Your task to perform on an android device: Go to location settings Image 0: 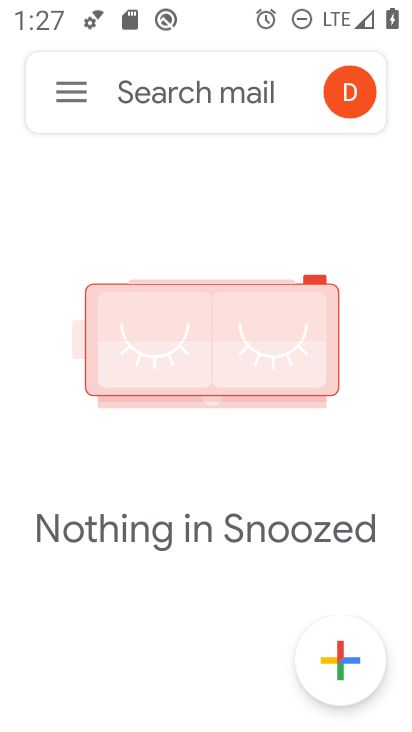
Step 0: press home button
Your task to perform on an android device: Go to location settings Image 1: 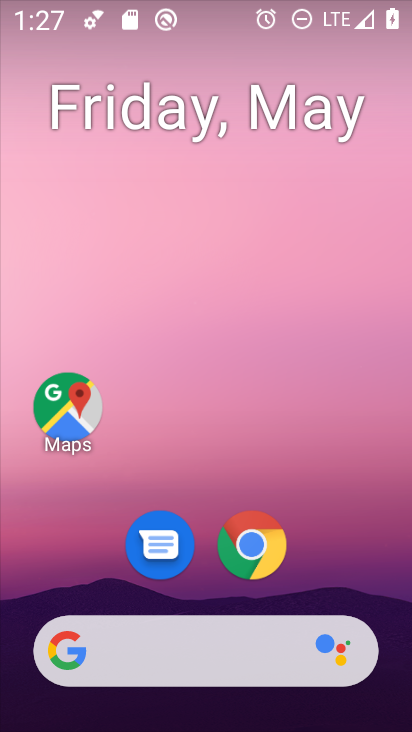
Step 1: drag from (346, 561) to (317, 290)
Your task to perform on an android device: Go to location settings Image 2: 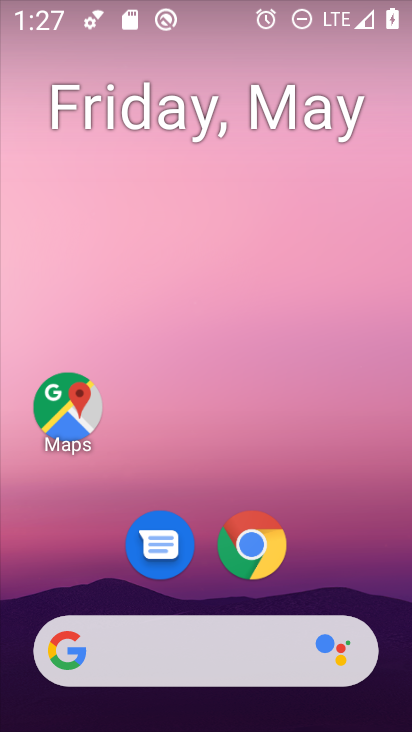
Step 2: drag from (339, 416) to (328, 272)
Your task to perform on an android device: Go to location settings Image 3: 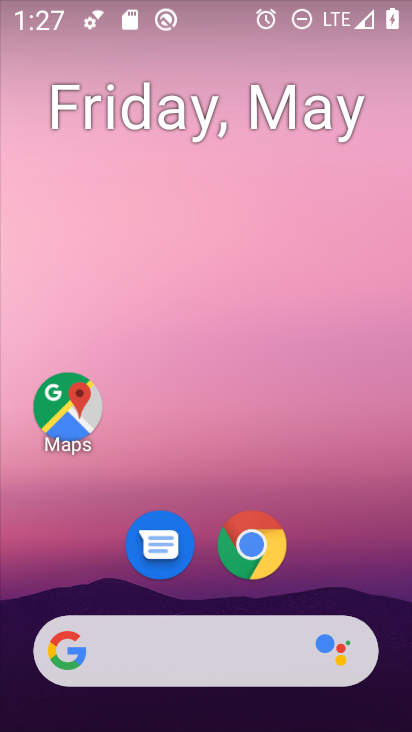
Step 3: drag from (315, 490) to (285, 239)
Your task to perform on an android device: Go to location settings Image 4: 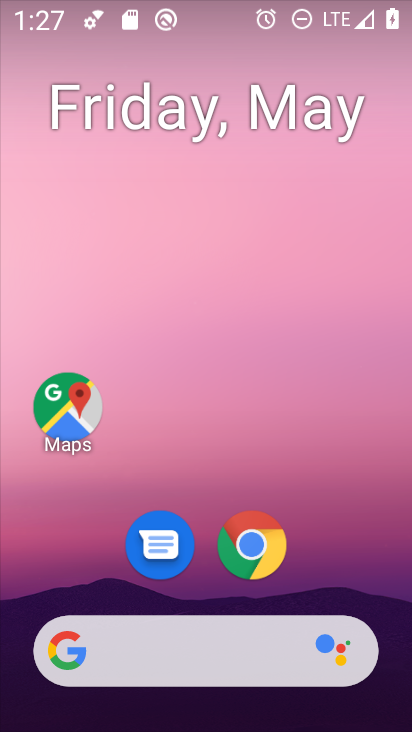
Step 4: drag from (296, 567) to (289, 235)
Your task to perform on an android device: Go to location settings Image 5: 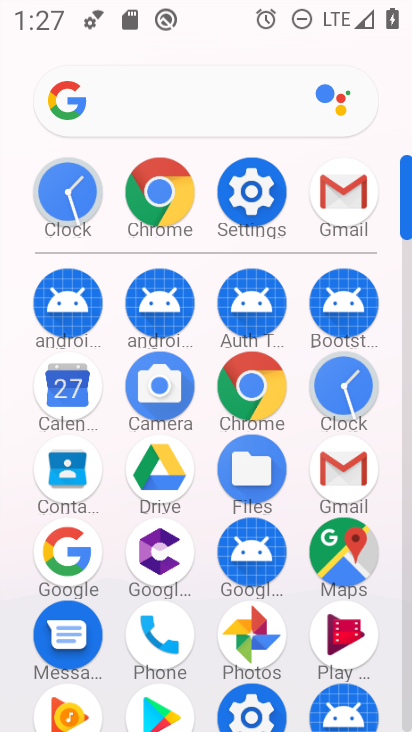
Step 5: click (234, 182)
Your task to perform on an android device: Go to location settings Image 6: 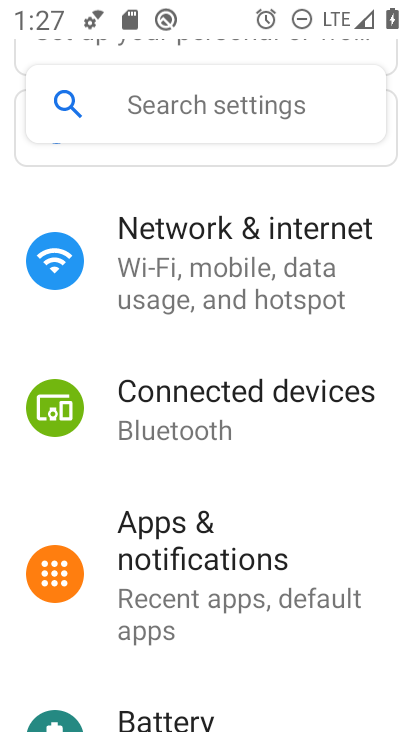
Step 6: drag from (259, 632) to (251, 186)
Your task to perform on an android device: Go to location settings Image 7: 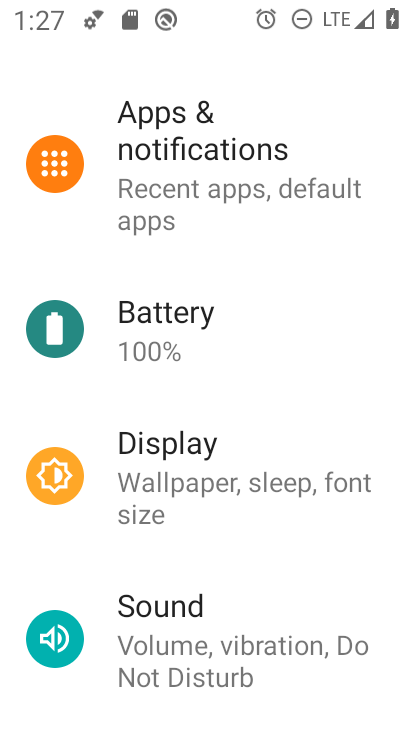
Step 7: drag from (245, 579) to (253, 164)
Your task to perform on an android device: Go to location settings Image 8: 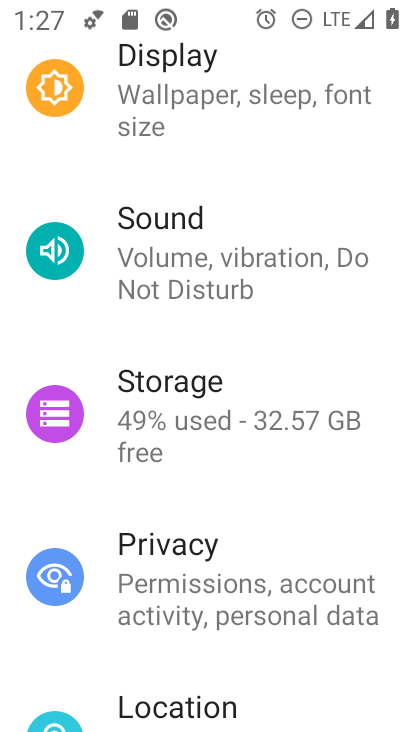
Step 8: drag from (212, 574) to (227, 264)
Your task to perform on an android device: Go to location settings Image 9: 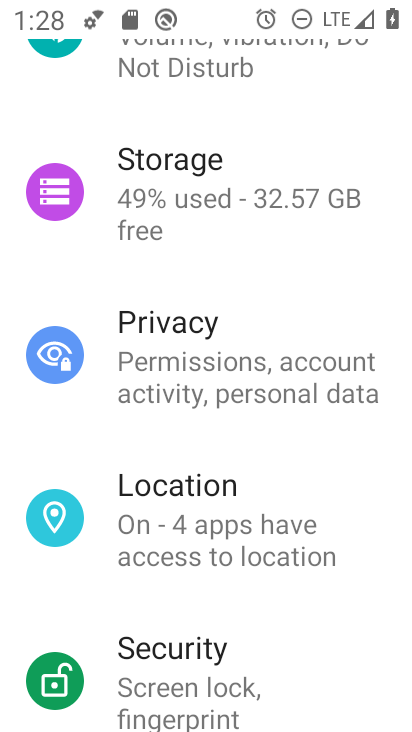
Step 9: click (168, 627)
Your task to perform on an android device: Go to location settings Image 10: 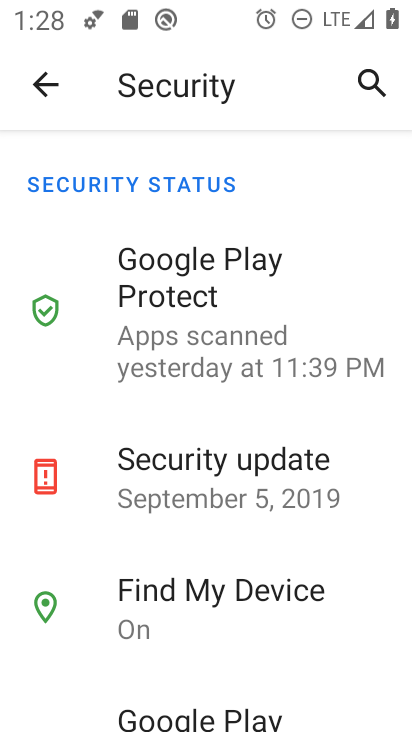
Step 10: drag from (264, 604) to (267, 280)
Your task to perform on an android device: Go to location settings Image 11: 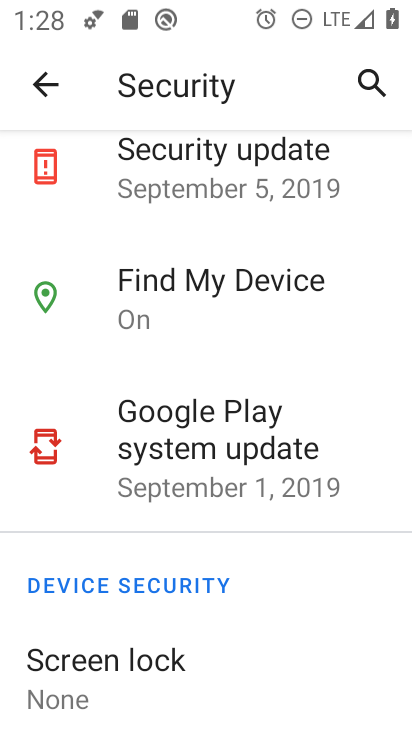
Step 11: click (56, 71)
Your task to perform on an android device: Go to location settings Image 12: 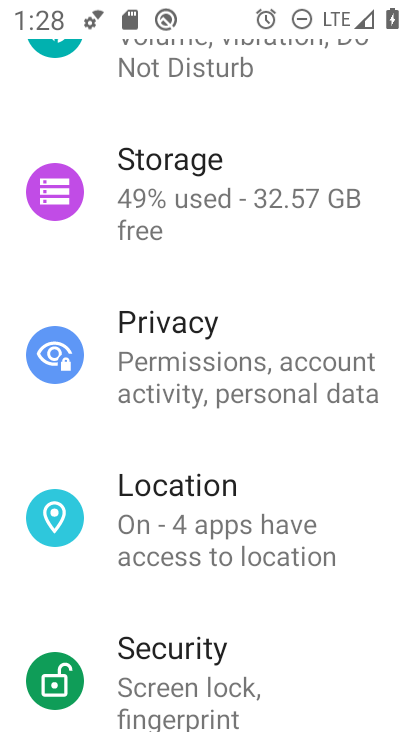
Step 12: click (240, 533)
Your task to perform on an android device: Go to location settings Image 13: 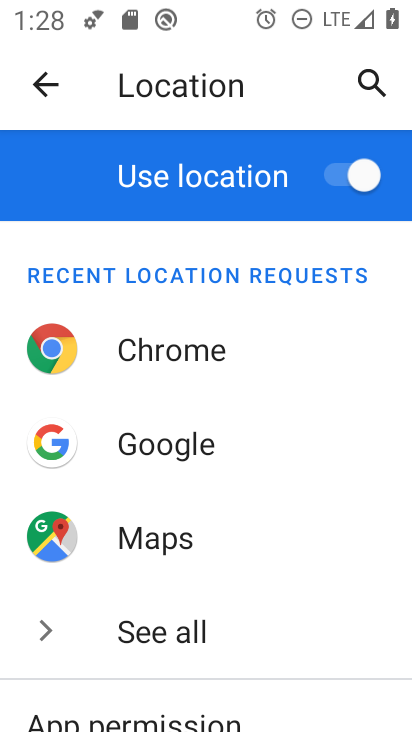
Step 13: task complete